Your task to perform on an android device: Go to Yahoo.com Image 0: 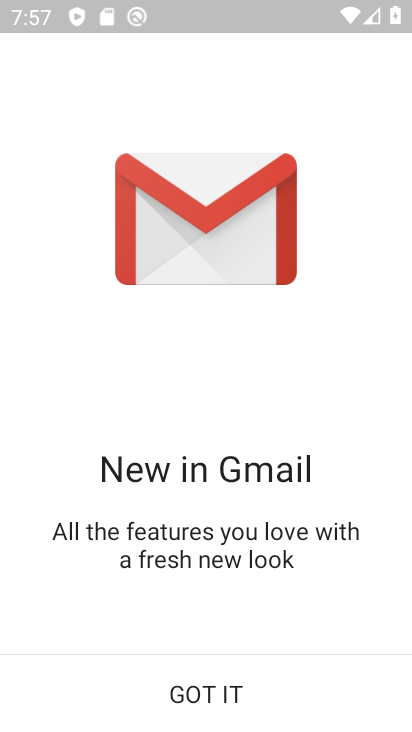
Step 0: press home button
Your task to perform on an android device: Go to Yahoo.com Image 1: 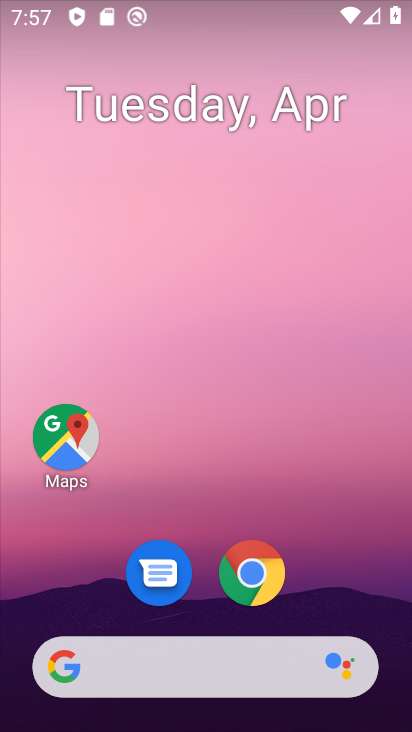
Step 1: click (268, 540)
Your task to perform on an android device: Go to Yahoo.com Image 2: 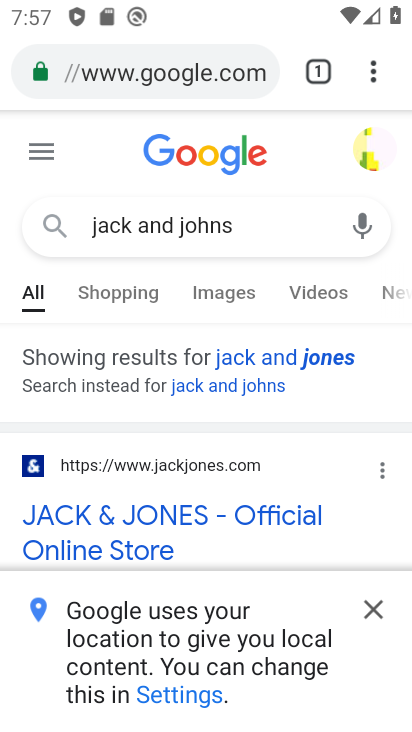
Step 2: click (318, 84)
Your task to perform on an android device: Go to Yahoo.com Image 3: 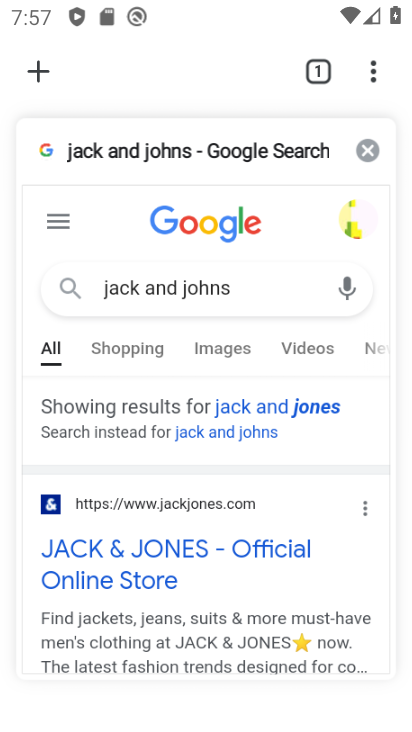
Step 3: click (43, 69)
Your task to perform on an android device: Go to Yahoo.com Image 4: 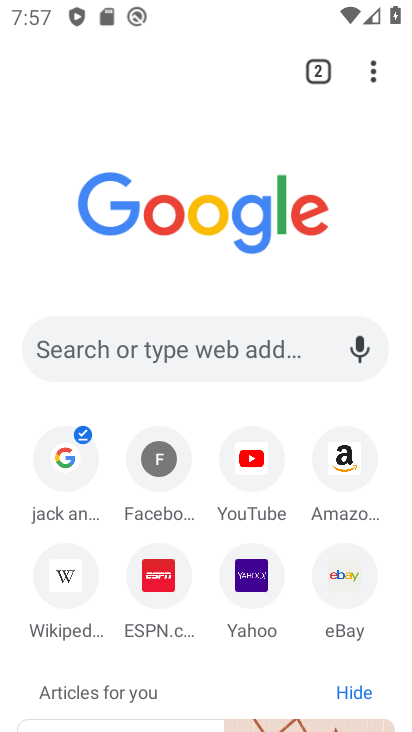
Step 4: click (242, 559)
Your task to perform on an android device: Go to Yahoo.com Image 5: 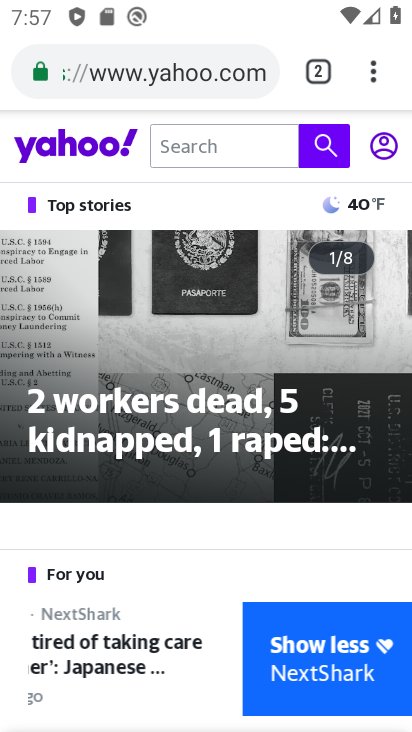
Step 5: task complete